Your task to perform on an android device: What is the recent news? Image 0: 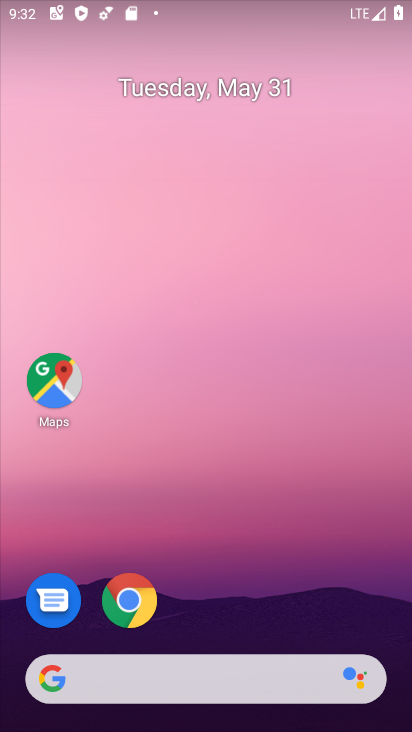
Step 0: click (176, 681)
Your task to perform on an android device: What is the recent news? Image 1: 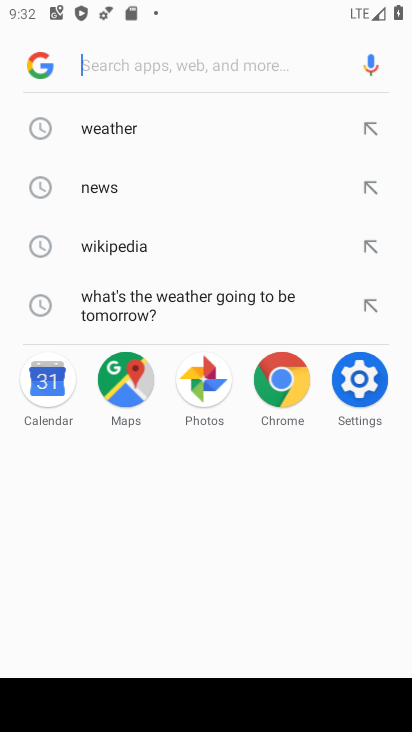
Step 1: type "recent news"
Your task to perform on an android device: What is the recent news? Image 2: 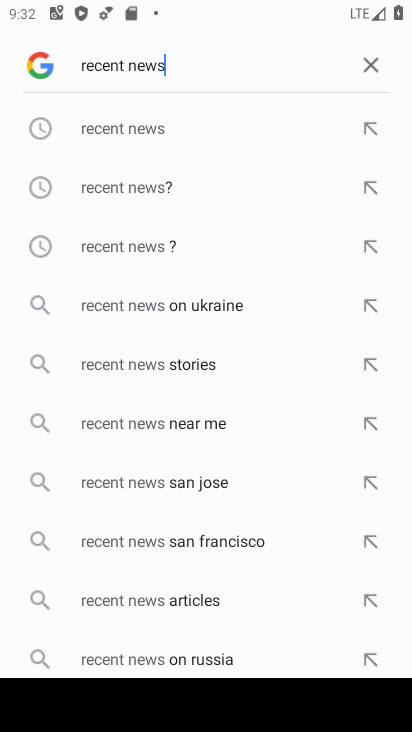
Step 2: click (132, 130)
Your task to perform on an android device: What is the recent news? Image 3: 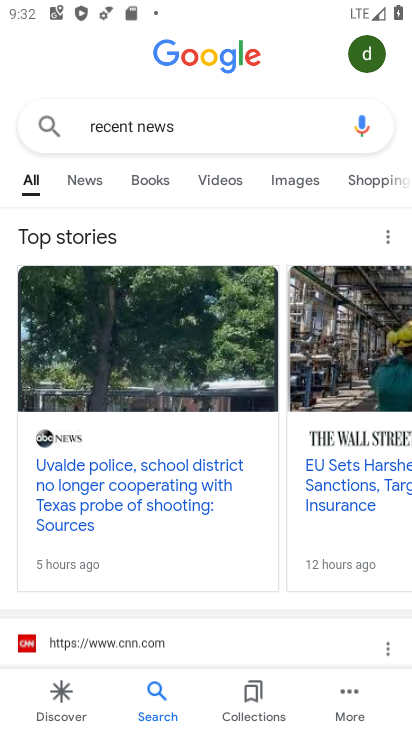
Step 3: task complete